Your task to perform on an android device: open wifi settings Image 0: 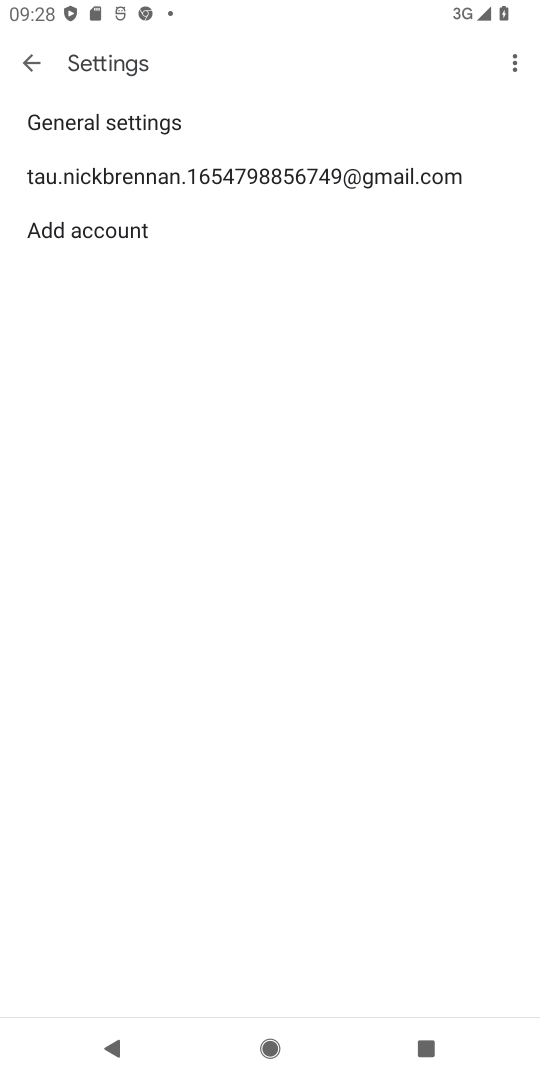
Step 0: press home button
Your task to perform on an android device: open wifi settings Image 1: 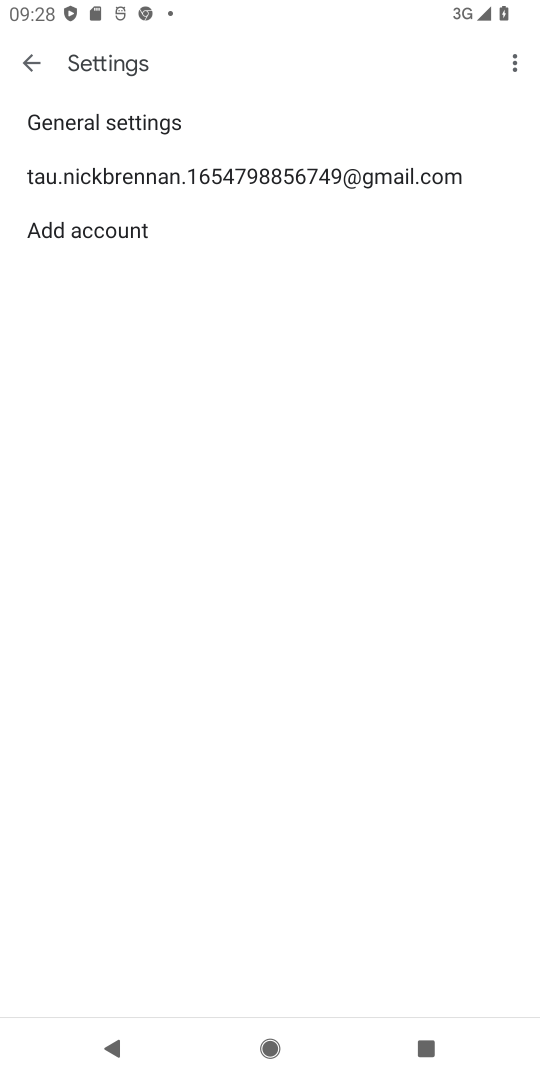
Step 1: press home button
Your task to perform on an android device: open wifi settings Image 2: 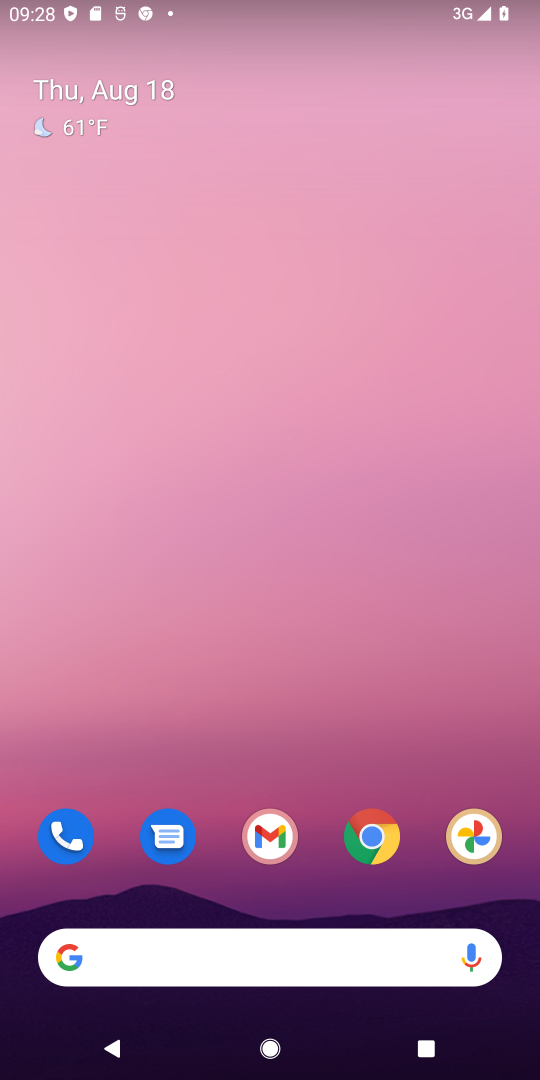
Step 2: drag from (242, 720) to (448, 6)
Your task to perform on an android device: open wifi settings Image 3: 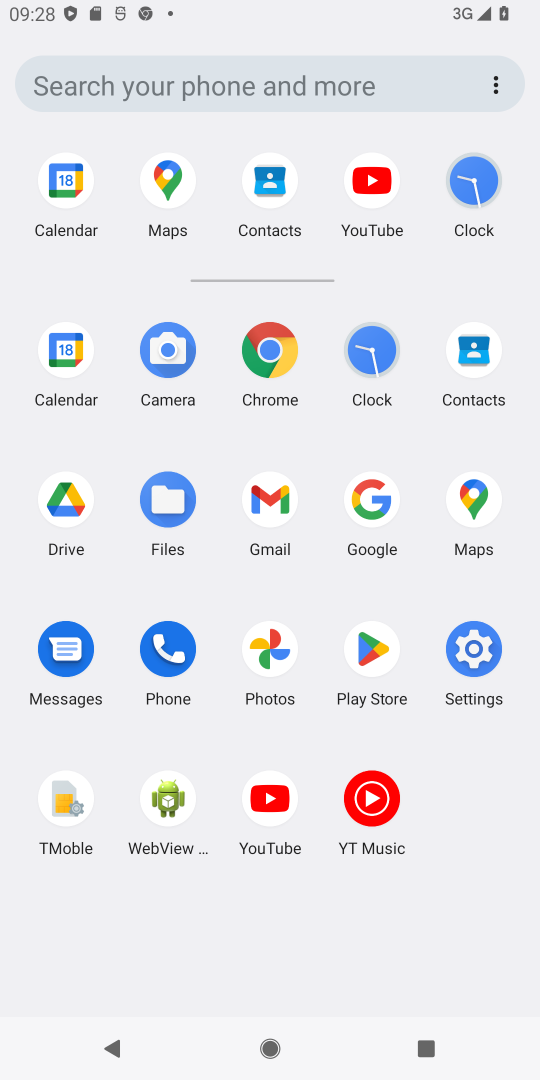
Step 3: click (458, 630)
Your task to perform on an android device: open wifi settings Image 4: 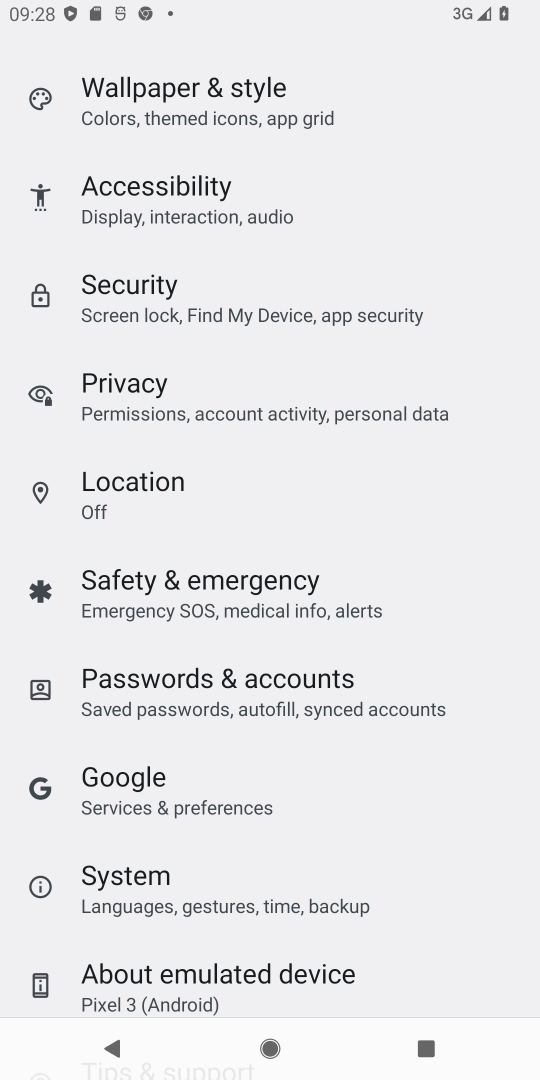
Step 4: drag from (435, 186) to (399, 991)
Your task to perform on an android device: open wifi settings Image 5: 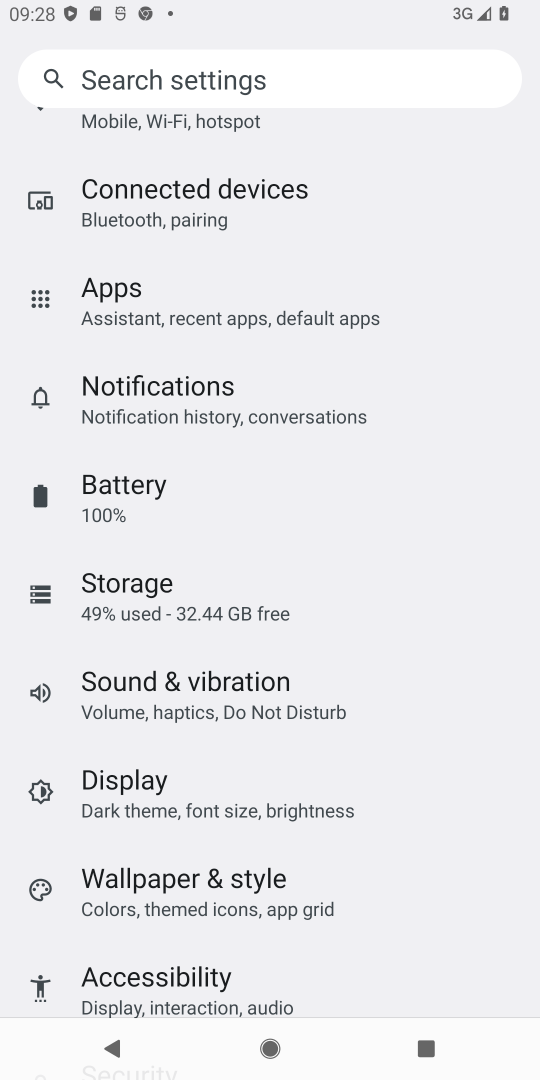
Step 5: drag from (327, 234) to (298, 973)
Your task to perform on an android device: open wifi settings Image 6: 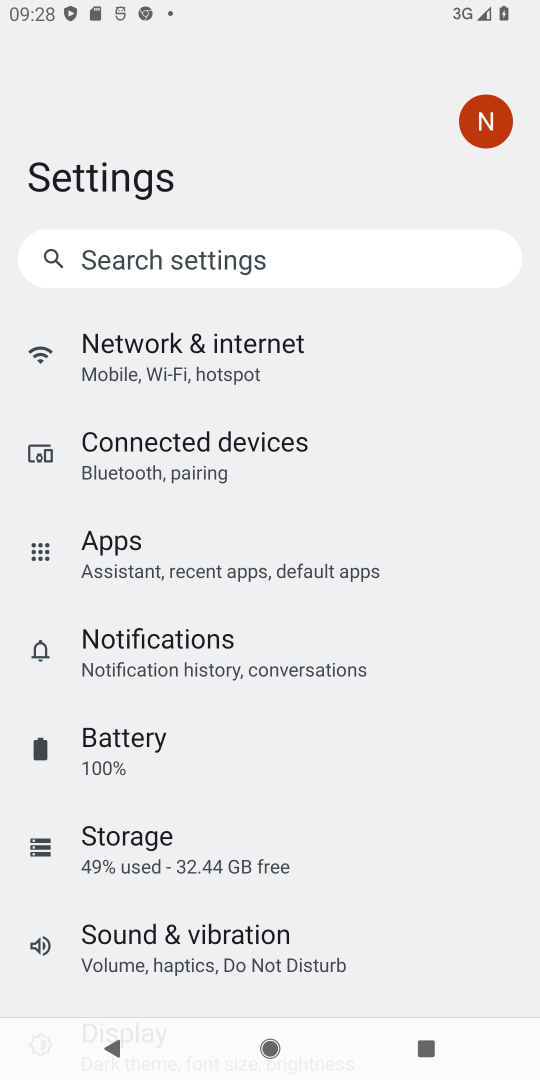
Step 6: click (254, 337)
Your task to perform on an android device: open wifi settings Image 7: 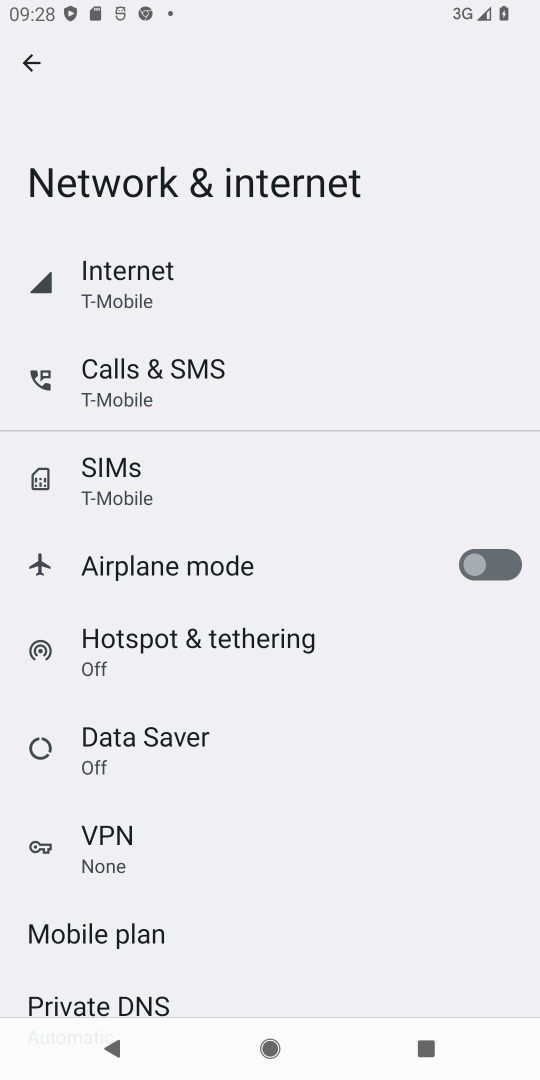
Step 7: click (154, 269)
Your task to perform on an android device: open wifi settings Image 8: 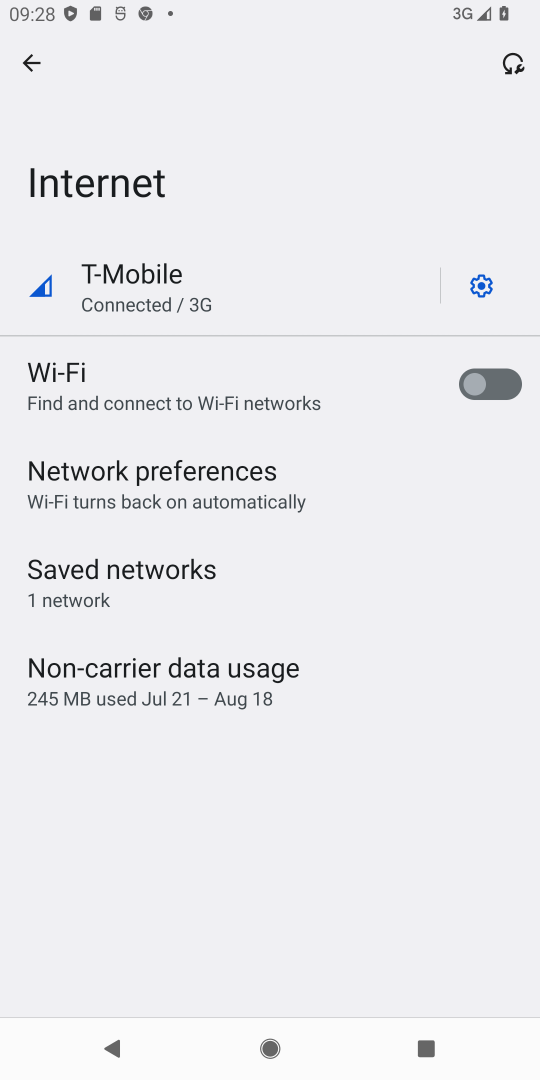
Step 8: click (231, 400)
Your task to perform on an android device: open wifi settings Image 9: 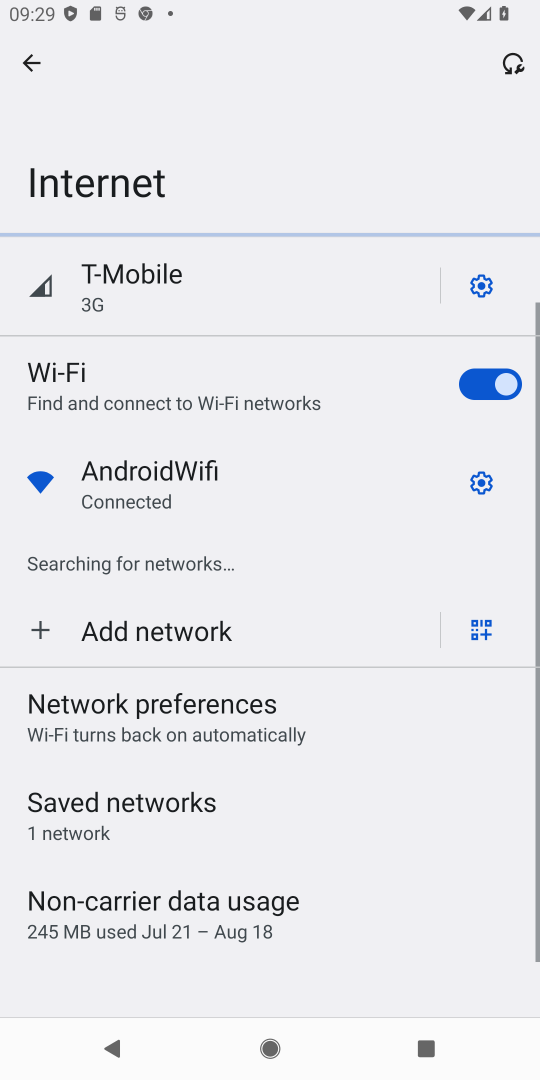
Step 9: click (482, 484)
Your task to perform on an android device: open wifi settings Image 10: 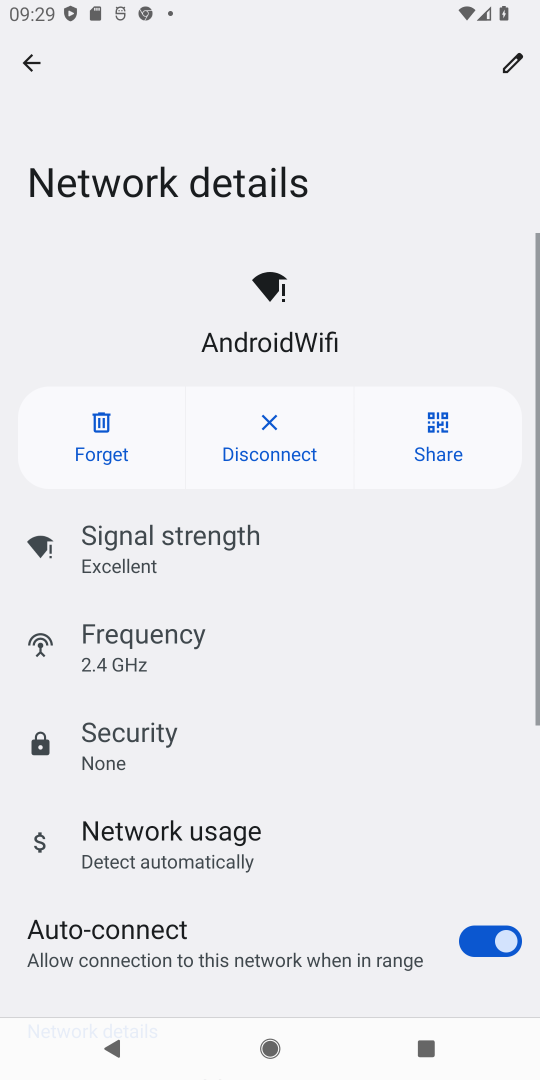
Step 10: task complete